Your task to perform on an android device: delete location history Image 0: 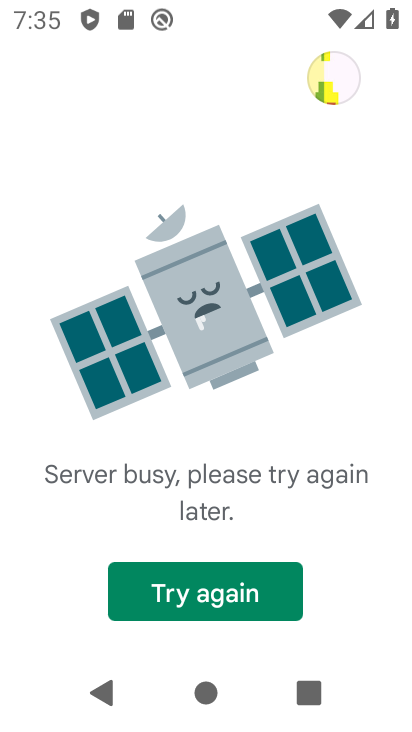
Step 0: press home button
Your task to perform on an android device: delete location history Image 1: 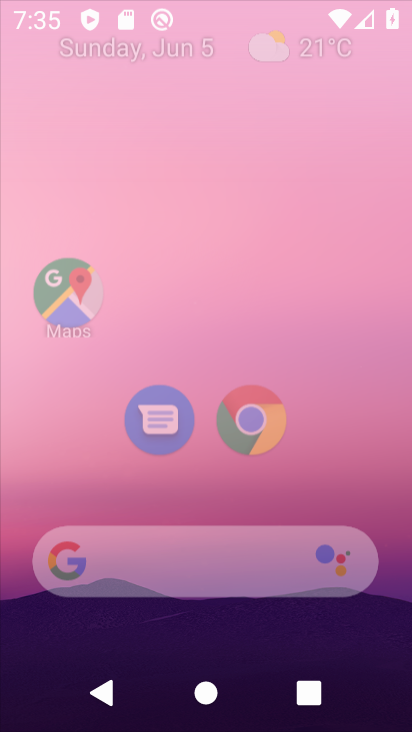
Step 1: drag from (164, 520) to (215, 141)
Your task to perform on an android device: delete location history Image 2: 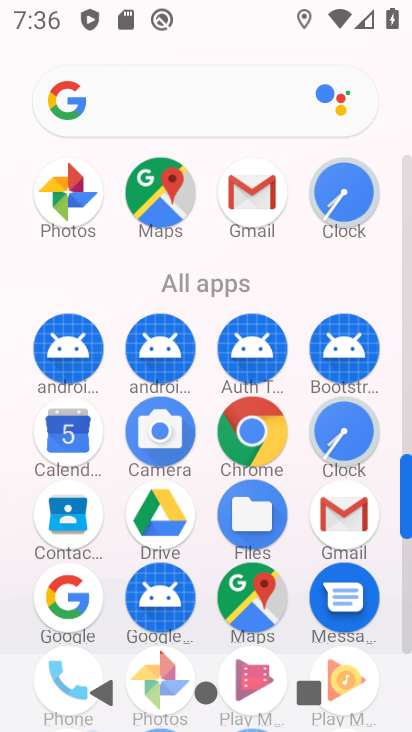
Step 2: drag from (218, 550) to (216, 279)
Your task to perform on an android device: delete location history Image 3: 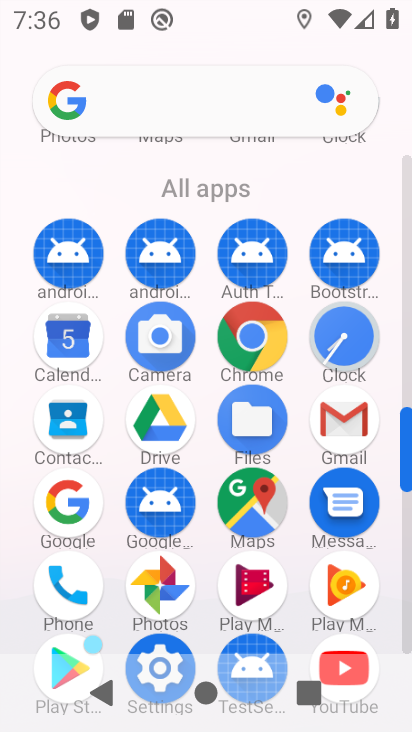
Step 3: drag from (215, 576) to (204, 324)
Your task to perform on an android device: delete location history Image 4: 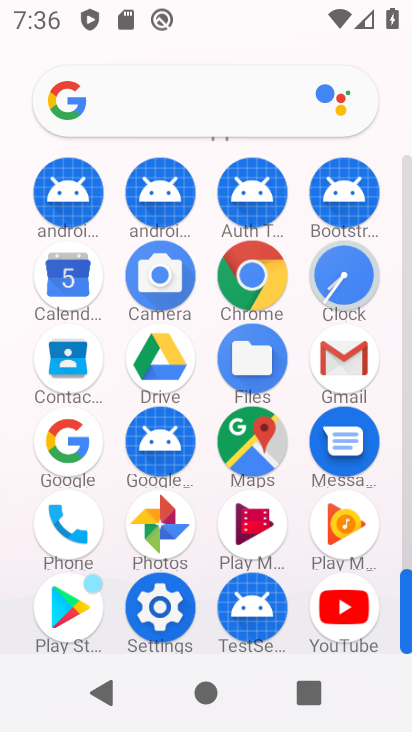
Step 4: click (154, 605)
Your task to perform on an android device: delete location history Image 5: 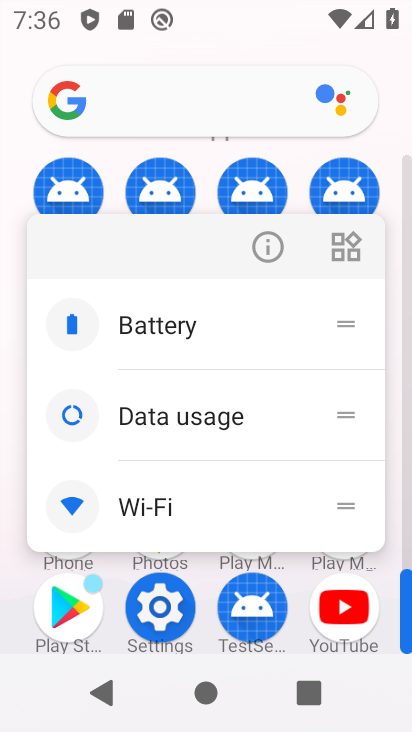
Step 5: click (277, 239)
Your task to perform on an android device: delete location history Image 6: 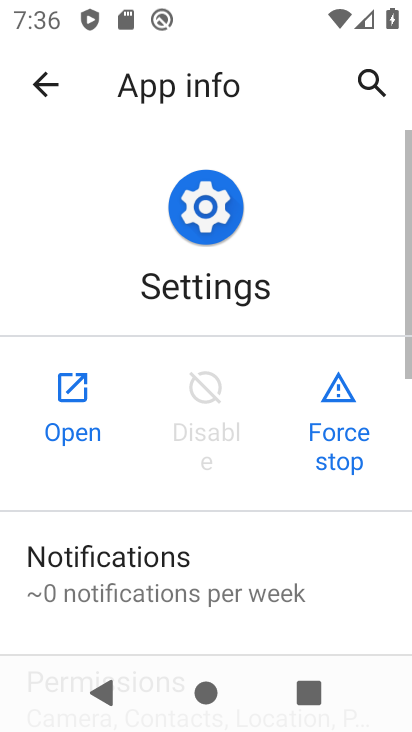
Step 6: click (66, 425)
Your task to perform on an android device: delete location history Image 7: 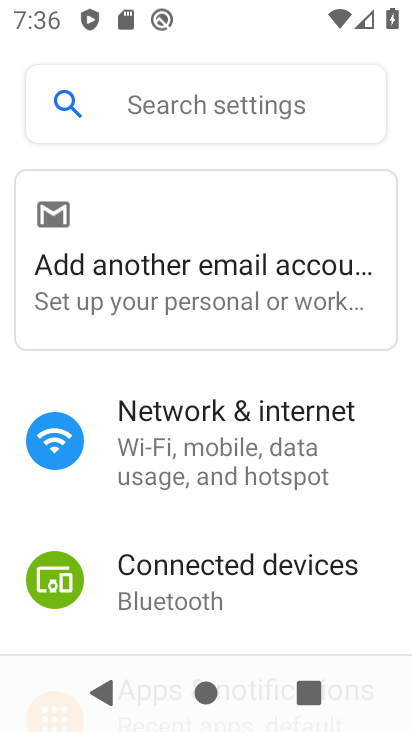
Step 7: drag from (216, 558) to (290, 26)
Your task to perform on an android device: delete location history Image 8: 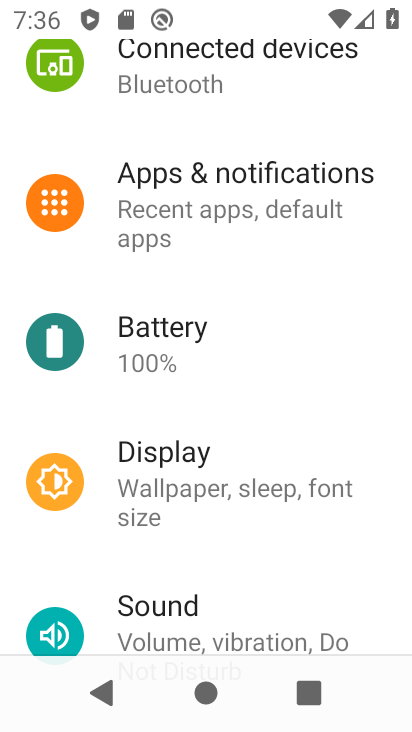
Step 8: drag from (212, 600) to (291, 119)
Your task to perform on an android device: delete location history Image 9: 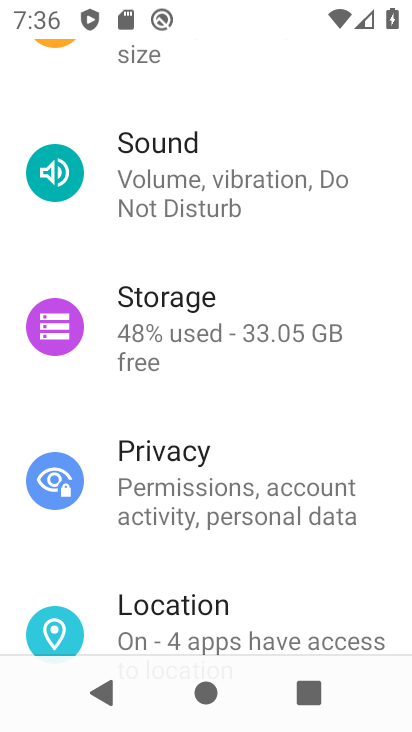
Step 9: click (200, 616)
Your task to perform on an android device: delete location history Image 10: 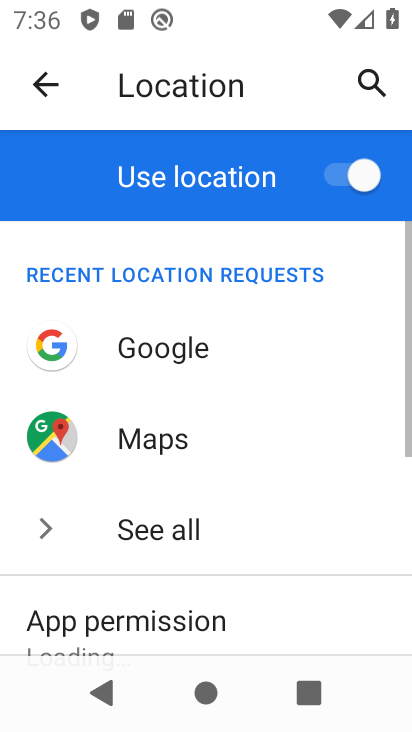
Step 10: drag from (201, 612) to (286, 102)
Your task to perform on an android device: delete location history Image 11: 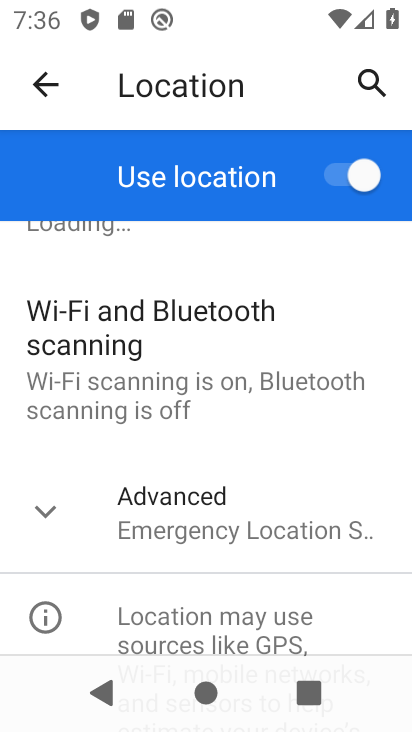
Step 11: click (163, 565)
Your task to perform on an android device: delete location history Image 12: 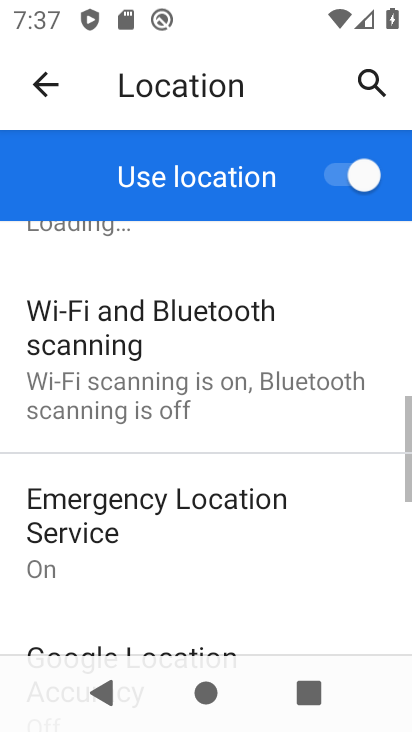
Step 12: drag from (174, 555) to (310, 147)
Your task to perform on an android device: delete location history Image 13: 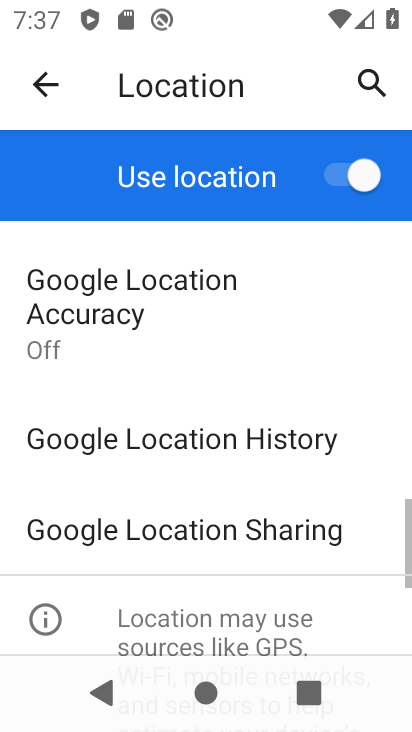
Step 13: click (277, 441)
Your task to perform on an android device: delete location history Image 14: 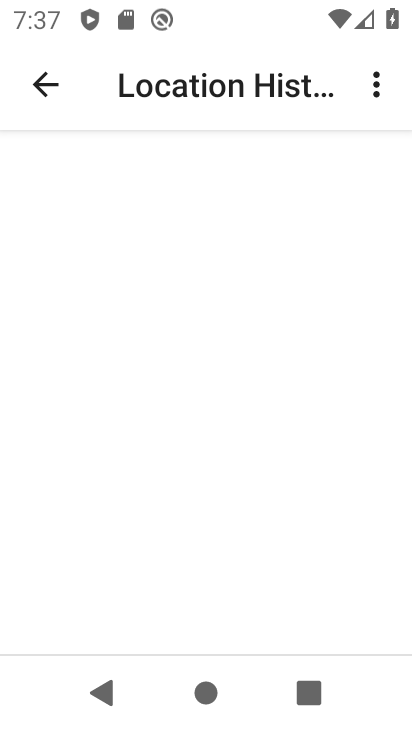
Step 14: drag from (158, 525) to (265, 103)
Your task to perform on an android device: delete location history Image 15: 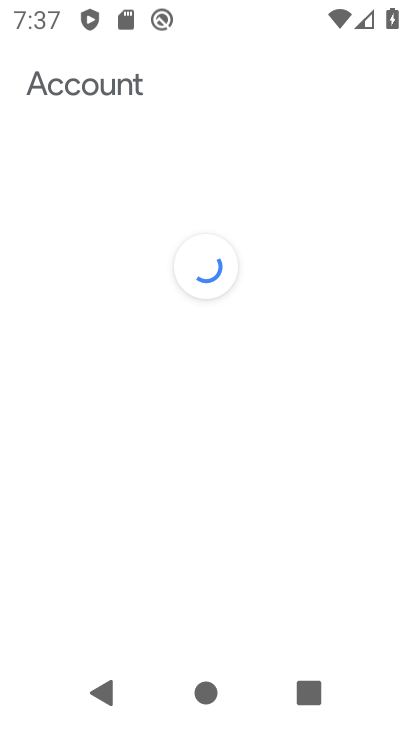
Step 15: drag from (217, 412) to (208, 319)
Your task to perform on an android device: delete location history Image 16: 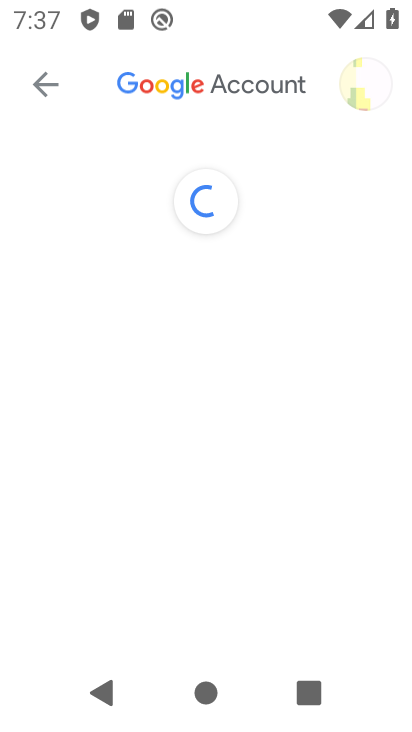
Step 16: drag from (253, 537) to (251, 9)
Your task to perform on an android device: delete location history Image 17: 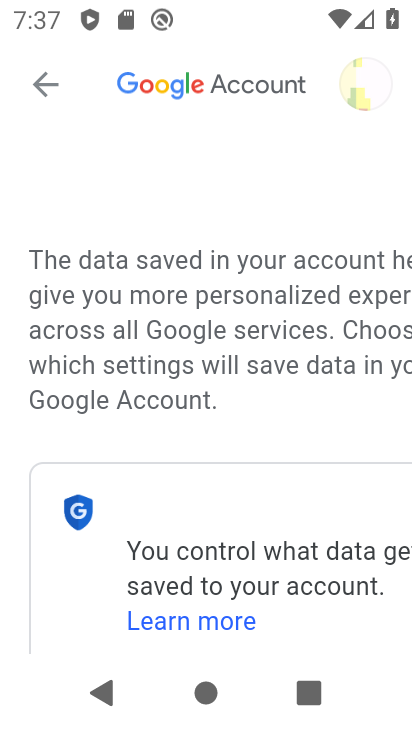
Step 17: drag from (247, 468) to (239, 278)
Your task to perform on an android device: delete location history Image 18: 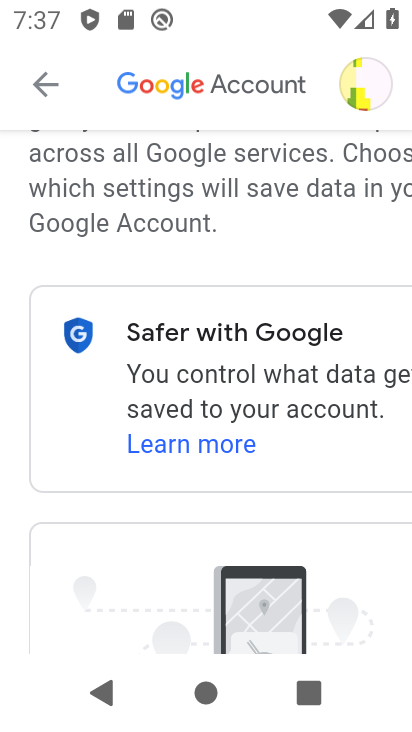
Step 18: drag from (228, 535) to (234, 227)
Your task to perform on an android device: delete location history Image 19: 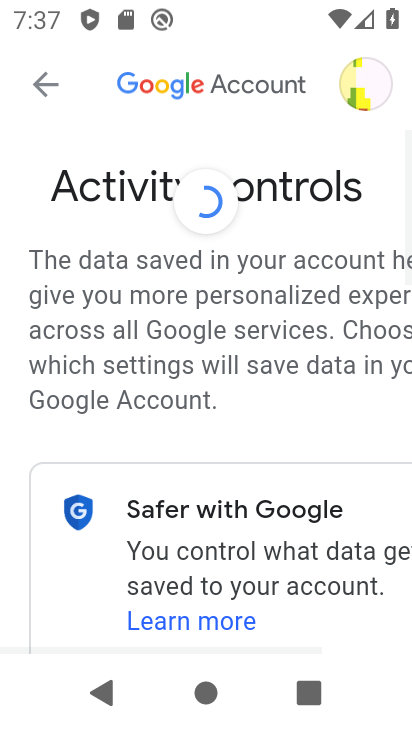
Step 19: drag from (260, 597) to (268, 242)
Your task to perform on an android device: delete location history Image 20: 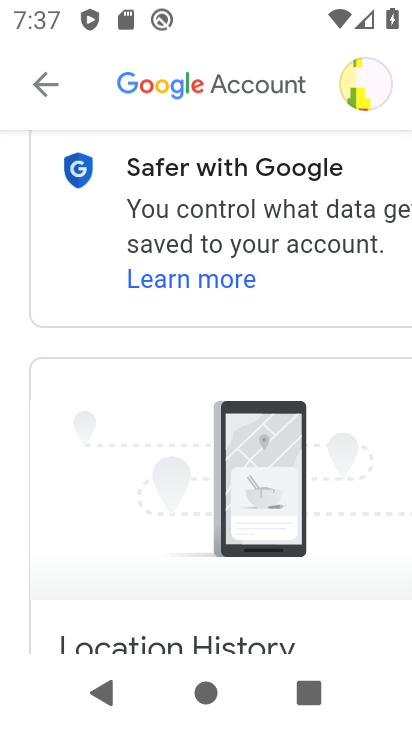
Step 20: drag from (253, 604) to (250, 219)
Your task to perform on an android device: delete location history Image 21: 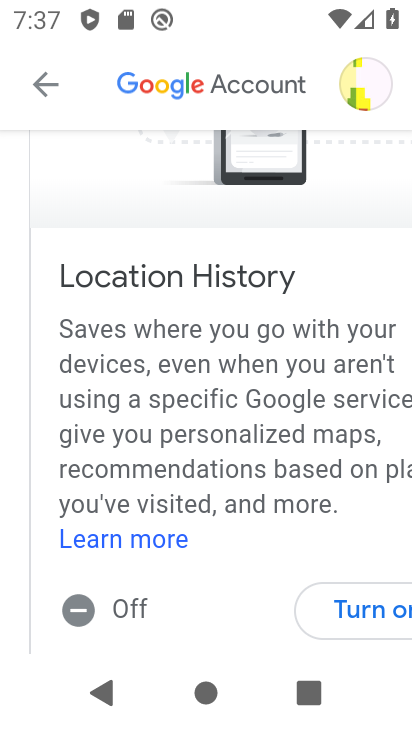
Step 21: drag from (292, 429) to (202, 36)
Your task to perform on an android device: delete location history Image 22: 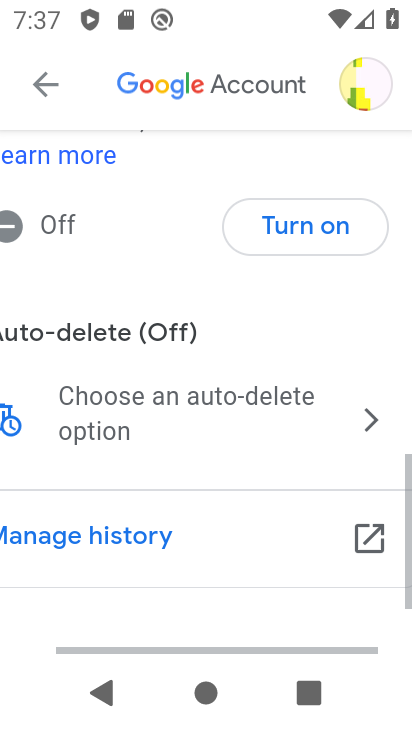
Step 22: drag from (162, 292) to (249, 259)
Your task to perform on an android device: delete location history Image 23: 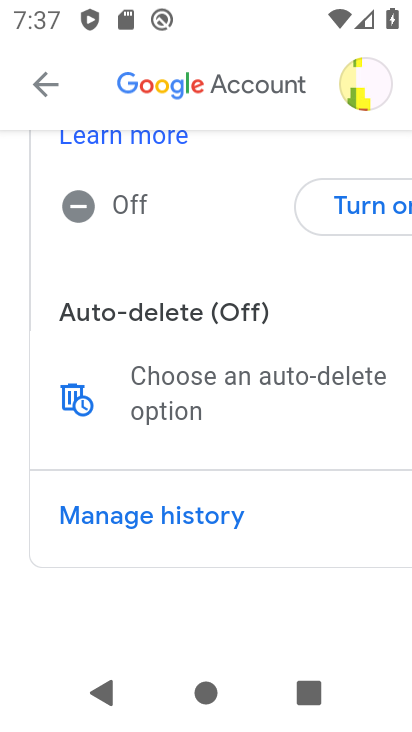
Step 23: click (73, 393)
Your task to perform on an android device: delete location history Image 24: 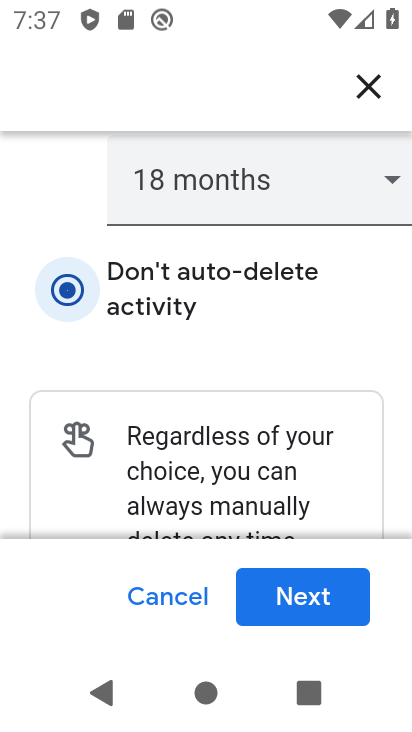
Step 24: click (313, 609)
Your task to perform on an android device: delete location history Image 25: 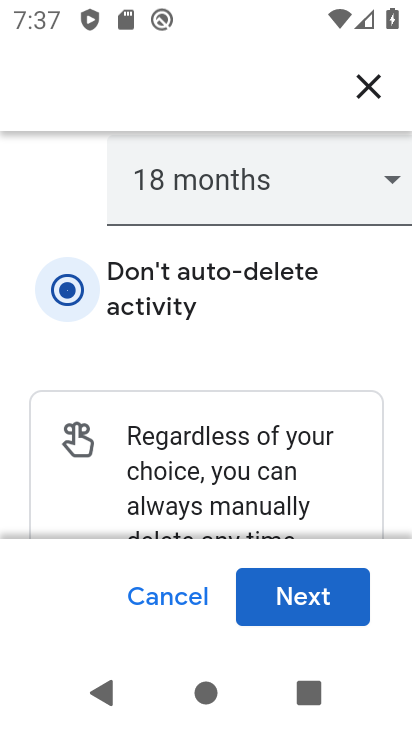
Step 25: click (334, 597)
Your task to perform on an android device: delete location history Image 26: 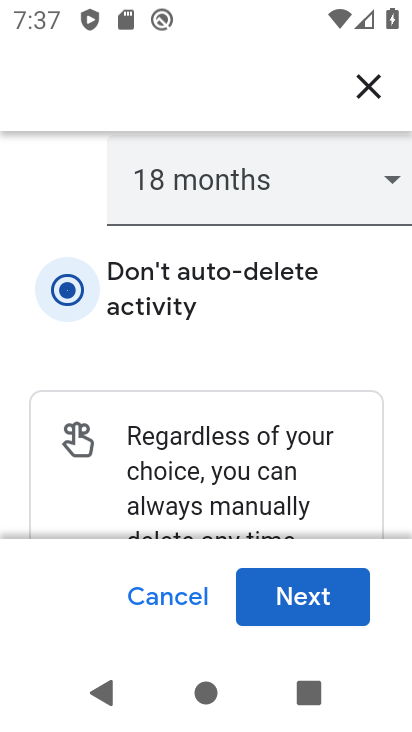
Step 26: click (336, 595)
Your task to perform on an android device: delete location history Image 27: 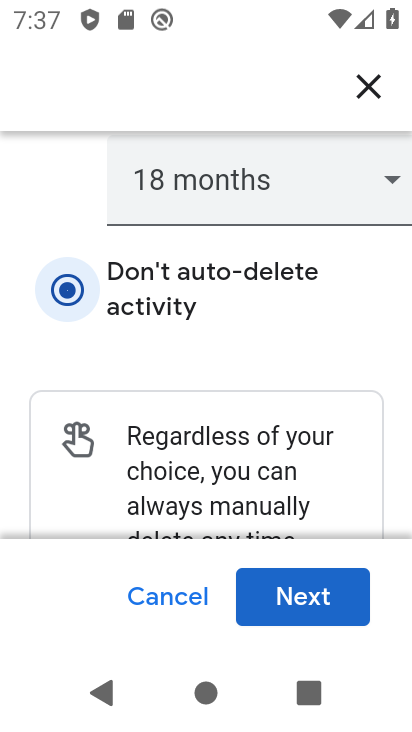
Step 27: click (333, 594)
Your task to perform on an android device: delete location history Image 28: 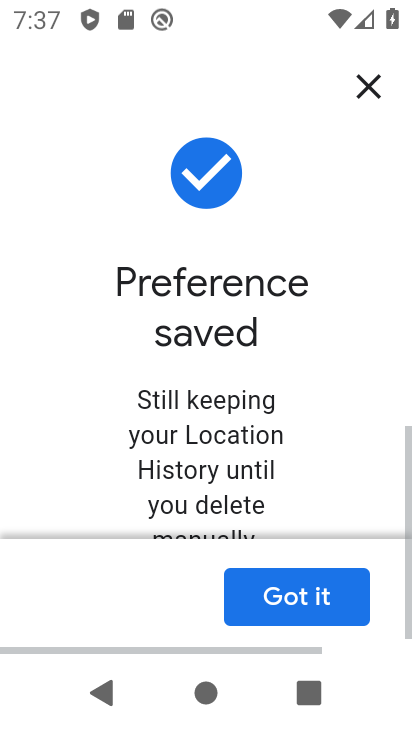
Step 28: click (290, 604)
Your task to perform on an android device: delete location history Image 29: 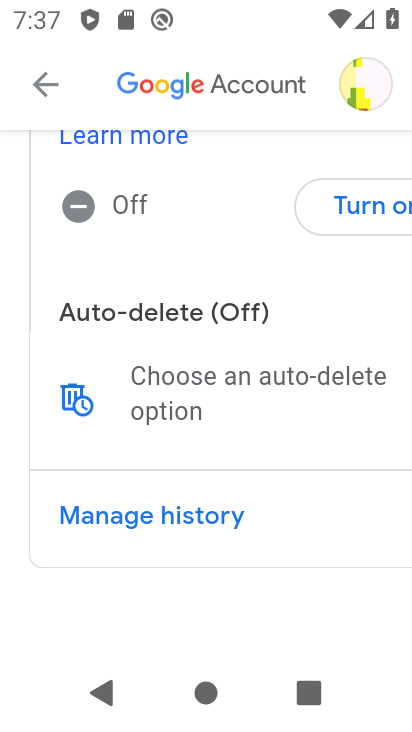
Step 29: task complete